Your task to perform on an android device: move an email to a new category in the gmail app Image 0: 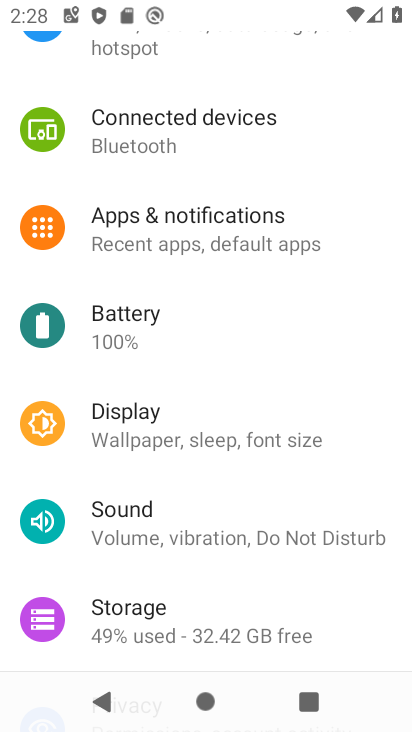
Step 0: press home button
Your task to perform on an android device: move an email to a new category in the gmail app Image 1: 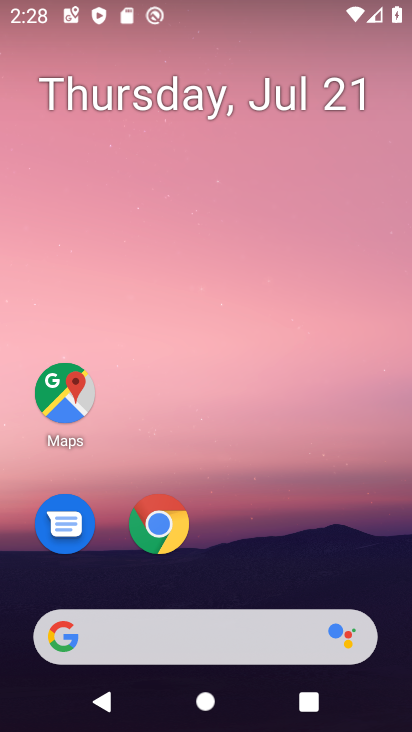
Step 1: drag from (271, 351) to (318, 77)
Your task to perform on an android device: move an email to a new category in the gmail app Image 2: 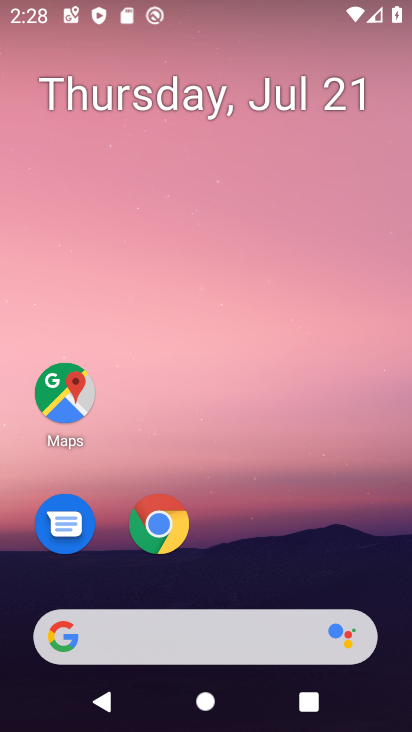
Step 2: drag from (275, 576) to (274, 50)
Your task to perform on an android device: move an email to a new category in the gmail app Image 3: 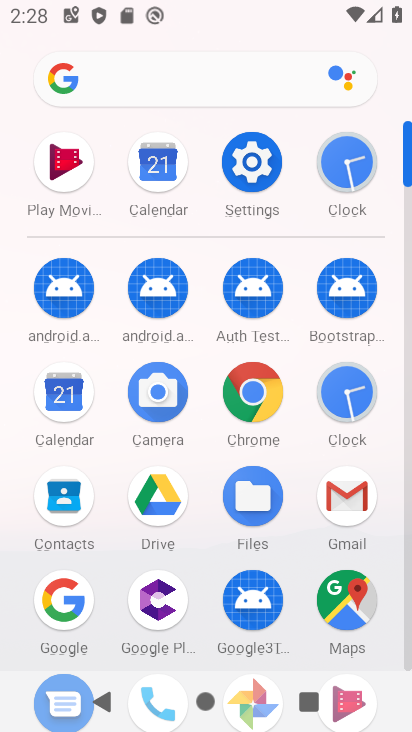
Step 3: click (357, 506)
Your task to perform on an android device: move an email to a new category in the gmail app Image 4: 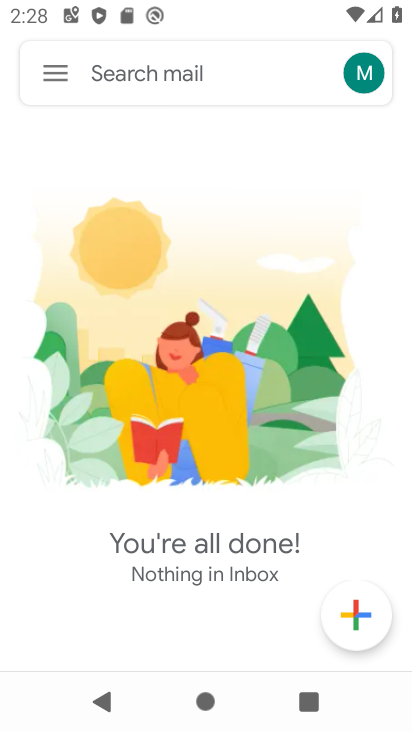
Step 4: click (64, 73)
Your task to perform on an android device: move an email to a new category in the gmail app Image 5: 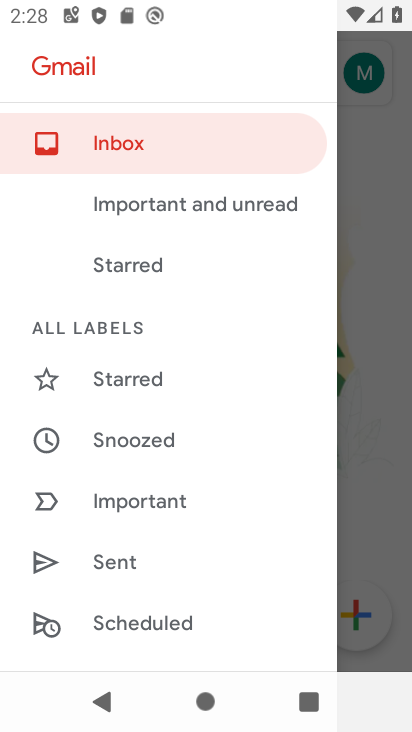
Step 5: drag from (168, 502) to (207, 139)
Your task to perform on an android device: move an email to a new category in the gmail app Image 6: 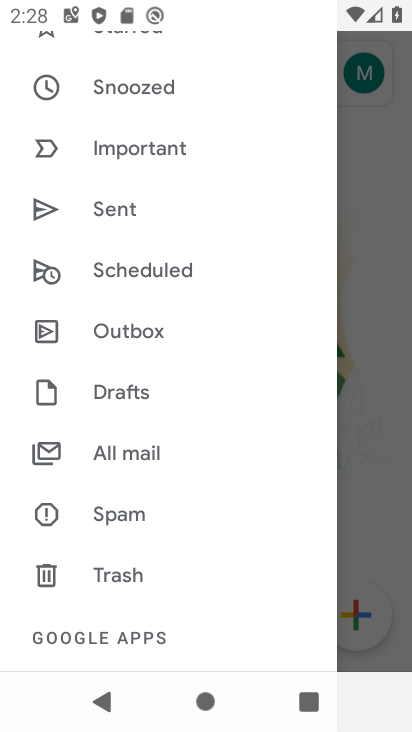
Step 6: click (149, 463)
Your task to perform on an android device: move an email to a new category in the gmail app Image 7: 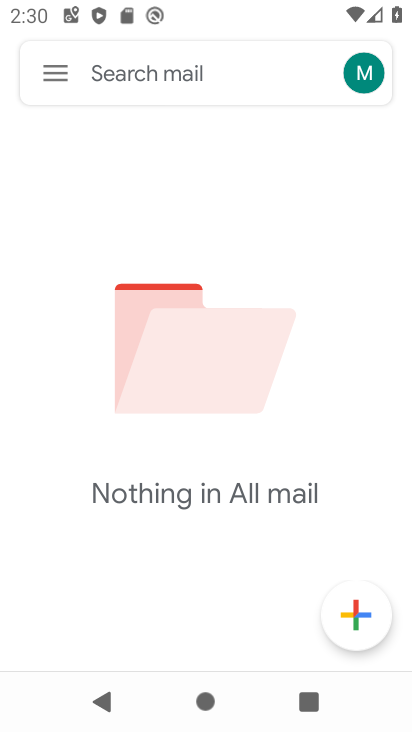
Step 7: task complete